Your task to perform on an android device: change the clock display to show seconds Image 0: 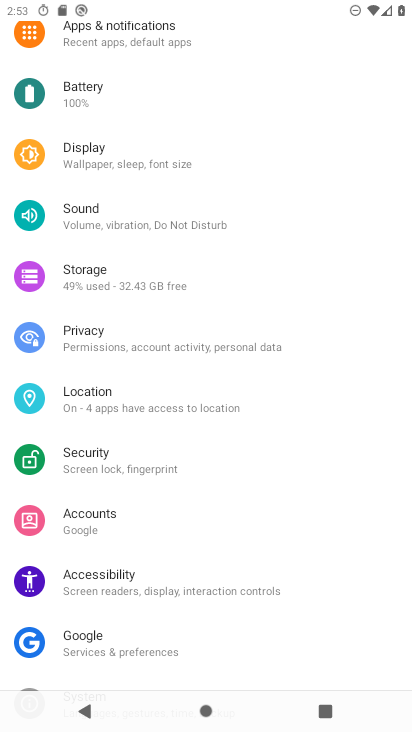
Step 0: press home button
Your task to perform on an android device: change the clock display to show seconds Image 1: 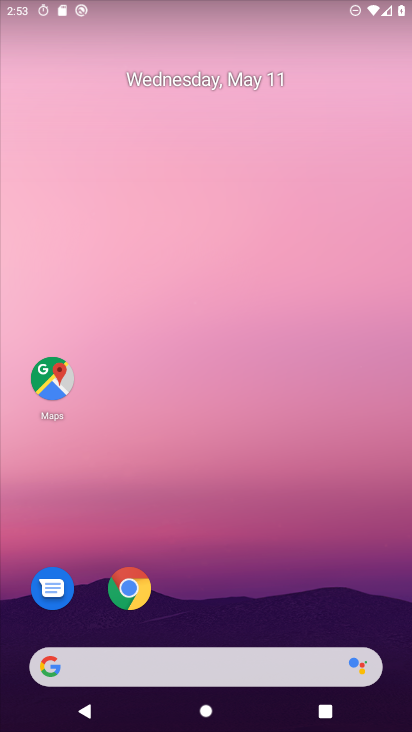
Step 1: drag from (252, 595) to (269, 67)
Your task to perform on an android device: change the clock display to show seconds Image 2: 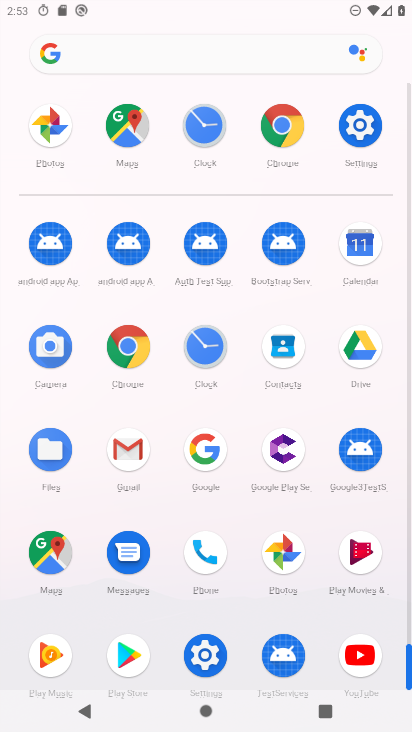
Step 2: click (212, 343)
Your task to perform on an android device: change the clock display to show seconds Image 3: 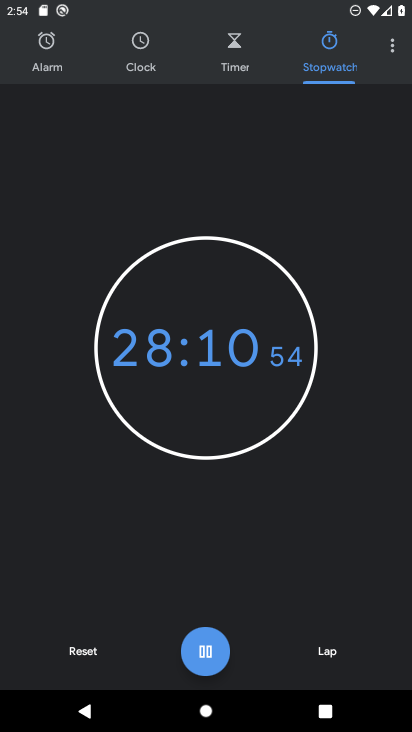
Step 3: click (389, 46)
Your task to perform on an android device: change the clock display to show seconds Image 4: 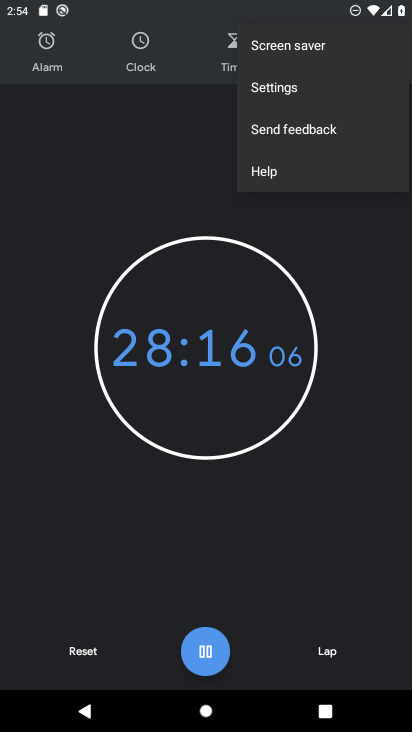
Step 4: click (276, 94)
Your task to perform on an android device: change the clock display to show seconds Image 5: 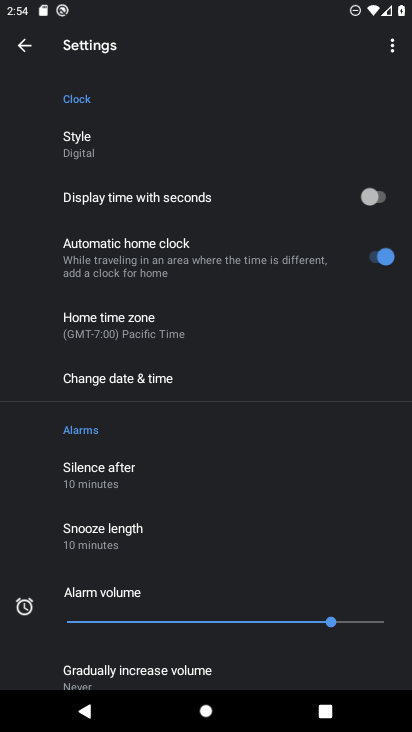
Step 5: click (370, 195)
Your task to perform on an android device: change the clock display to show seconds Image 6: 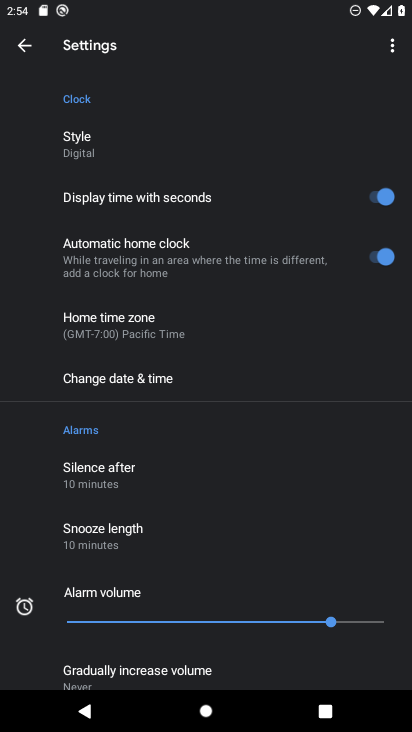
Step 6: task complete